Your task to perform on an android device: Add bose soundlink mini to the cart on bestbuy, then select checkout. Image 0: 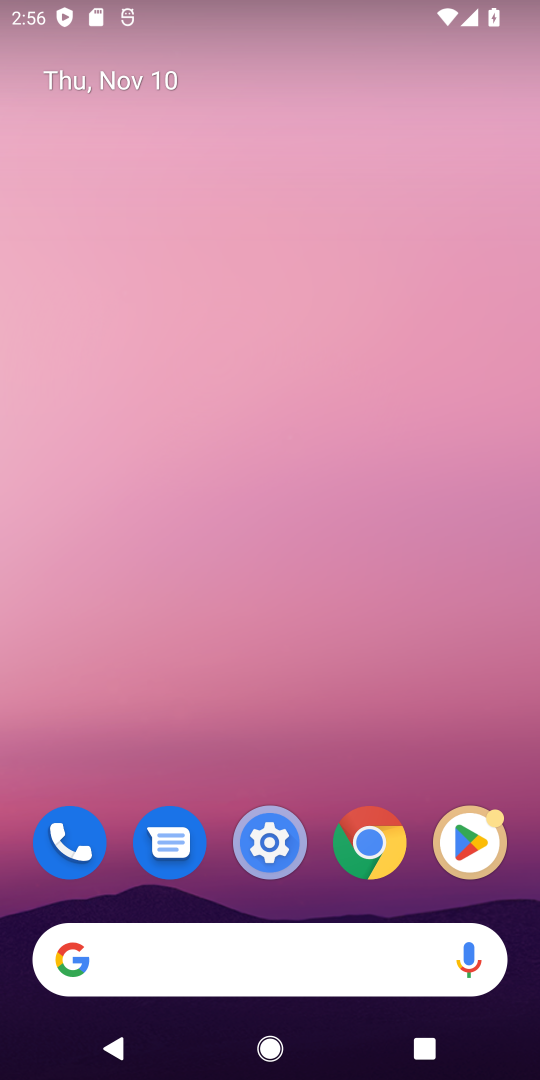
Step 0: press home button
Your task to perform on an android device: Add bose soundlink mini to the cart on bestbuy, then select checkout. Image 1: 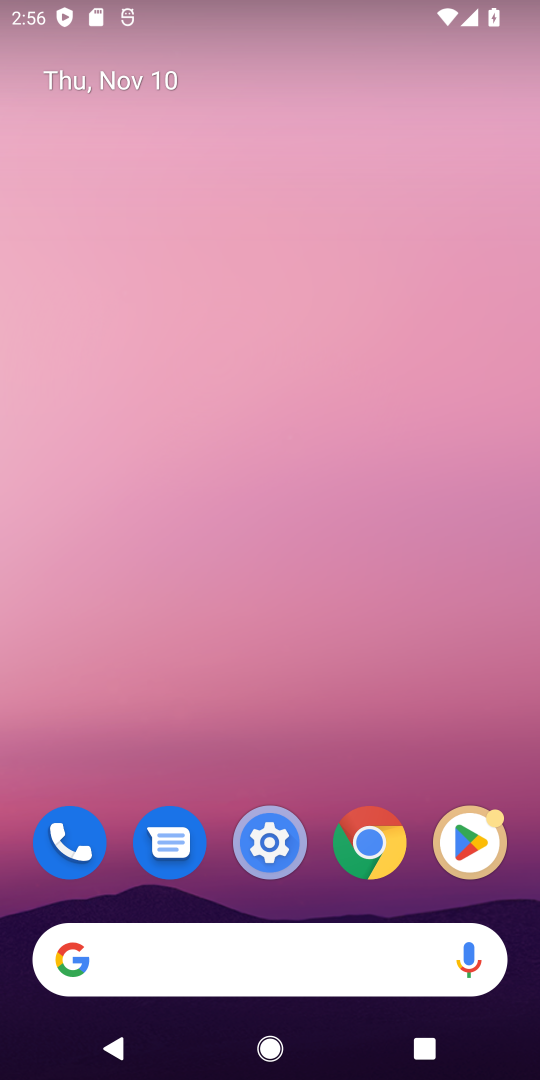
Step 1: click (123, 953)
Your task to perform on an android device: Add bose soundlink mini to the cart on bestbuy, then select checkout. Image 2: 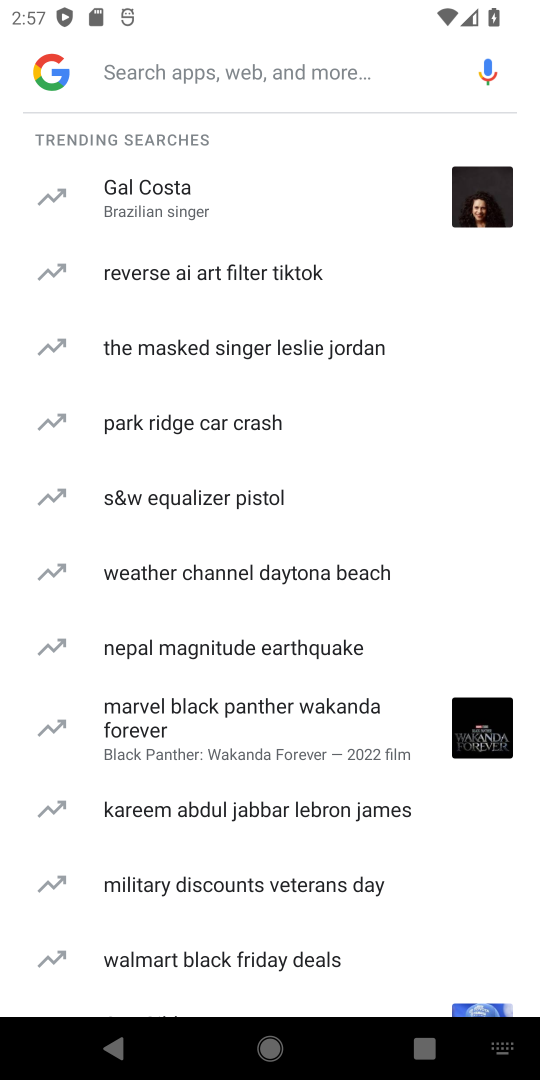
Step 2: type " bose soundlink mini"
Your task to perform on an android device: Add bose soundlink mini to the cart on bestbuy, then select checkout. Image 3: 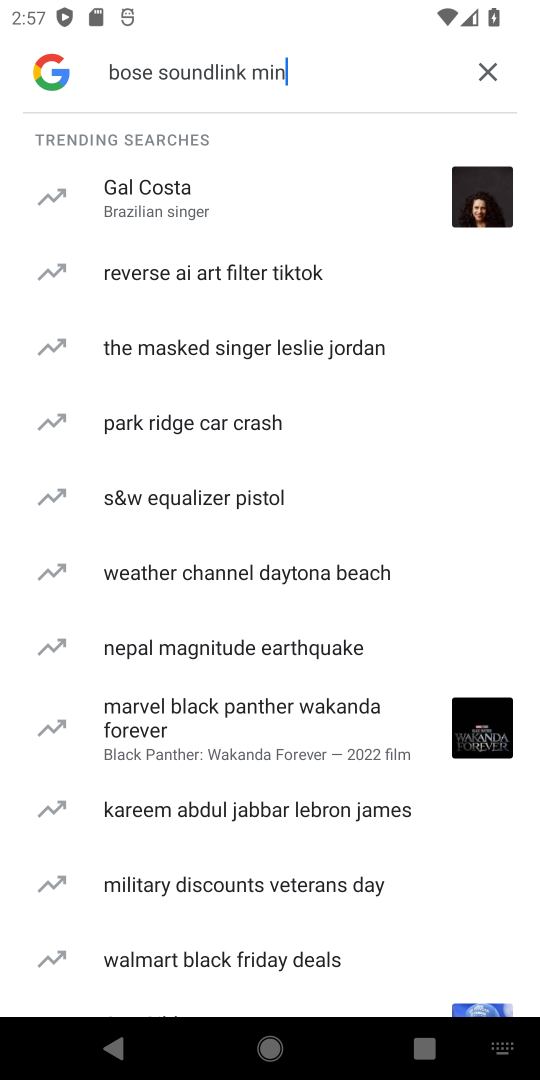
Step 3: press enter
Your task to perform on an android device: Add bose soundlink mini to the cart on bestbuy, then select checkout. Image 4: 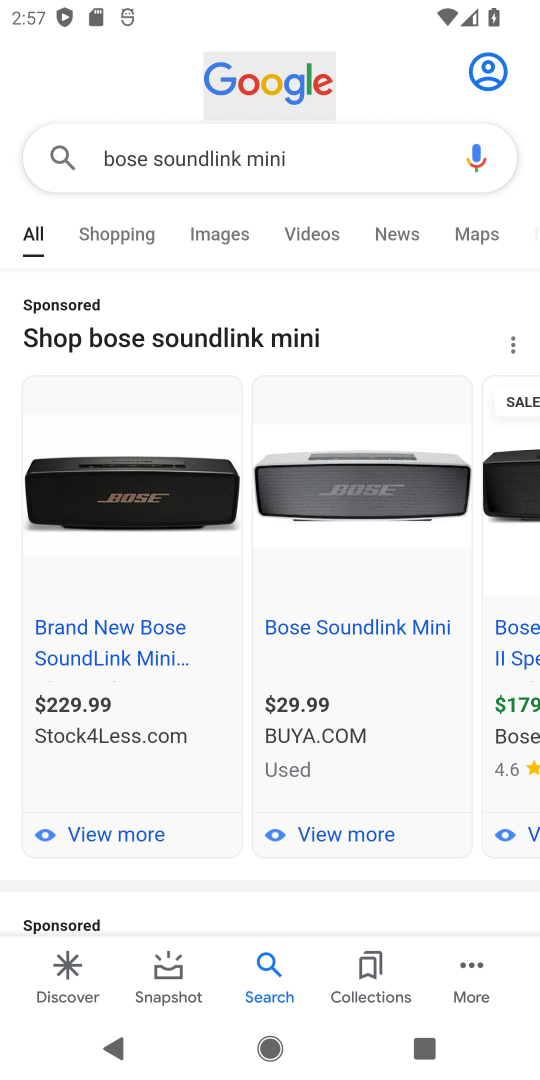
Step 4: drag from (262, 880) to (265, 474)
Your task to perform on an android device: Add bose soundlink mini to the cart on bestbuy, then select checkout. Image 5: 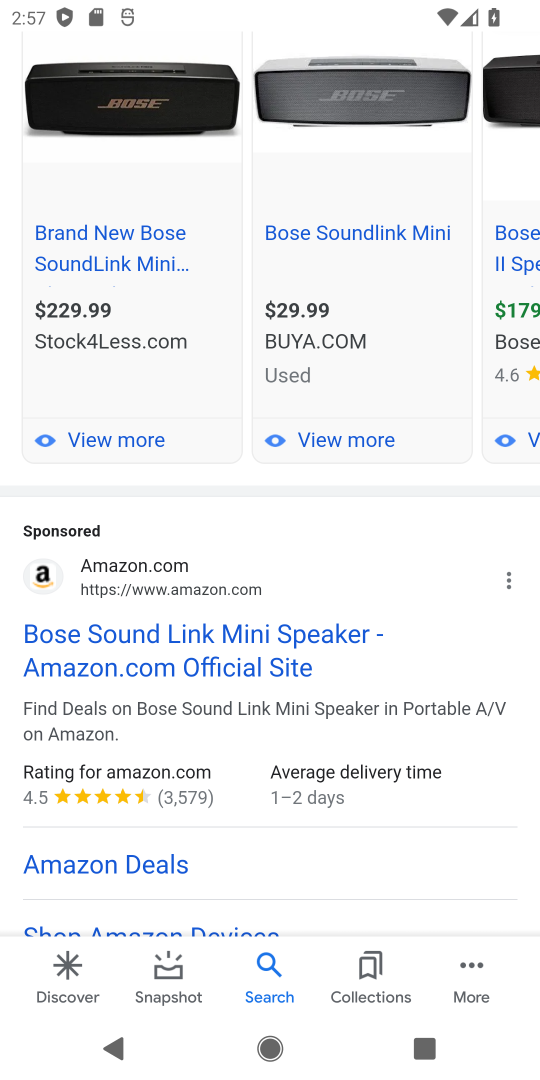
Step 5: drag from (224, 804) to (239, 499)
Your task to perform on an android device: Add bose soundlink mini to the cart on bestbuy, then select checkout. Image 6: 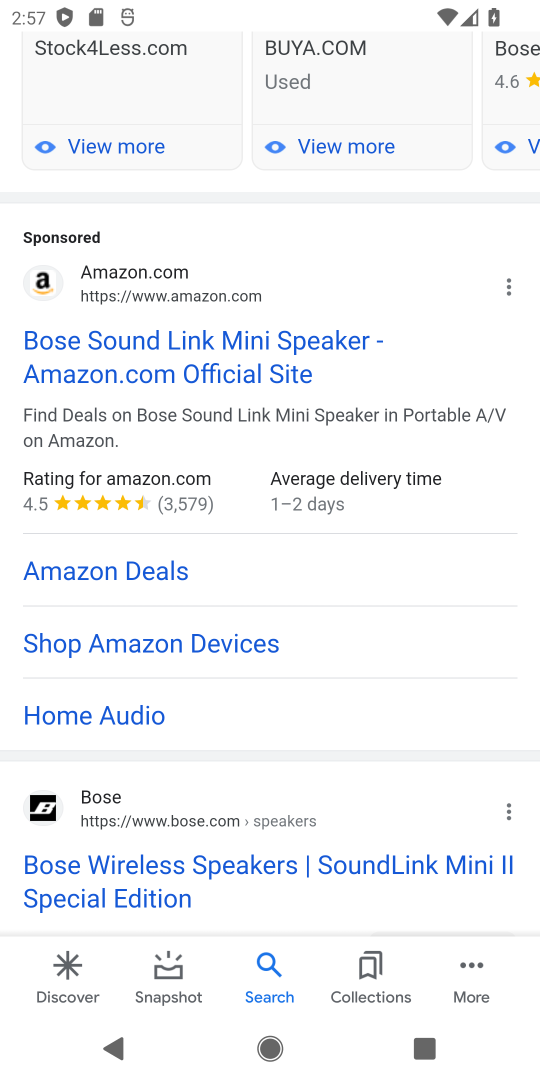
Step 6: drag from (363, 423) to (355, 779)
Your task to perform on an android device: Add bose soundlink mini to the cart on bestbuy, then select checkout. Image 7: 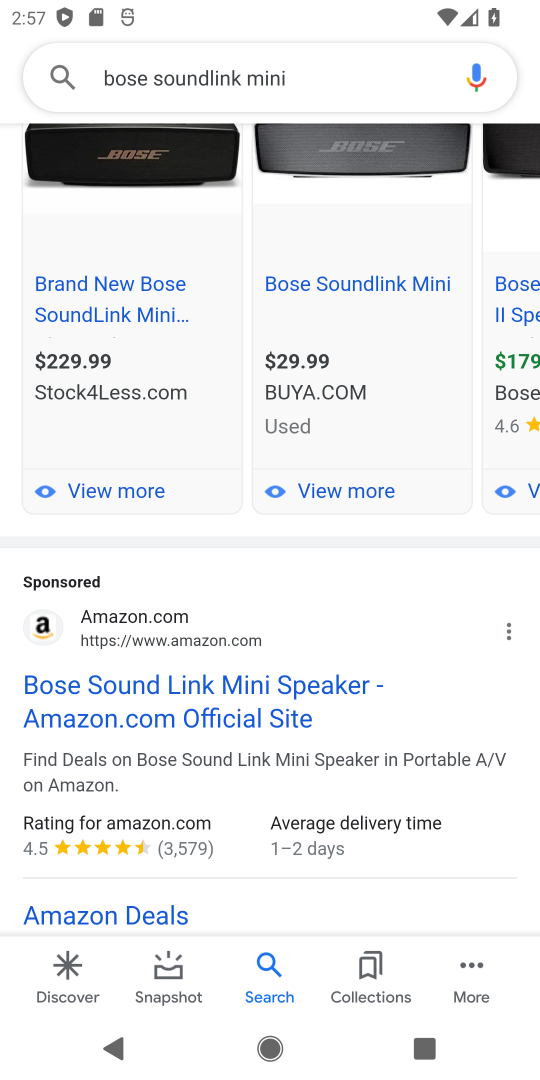
Step 7: drag from (348, 229) to (347, 821)
Your task to perform on an android device: Add bose soundlink mini to the cart on bestbuy, then select checkout. Image 8: 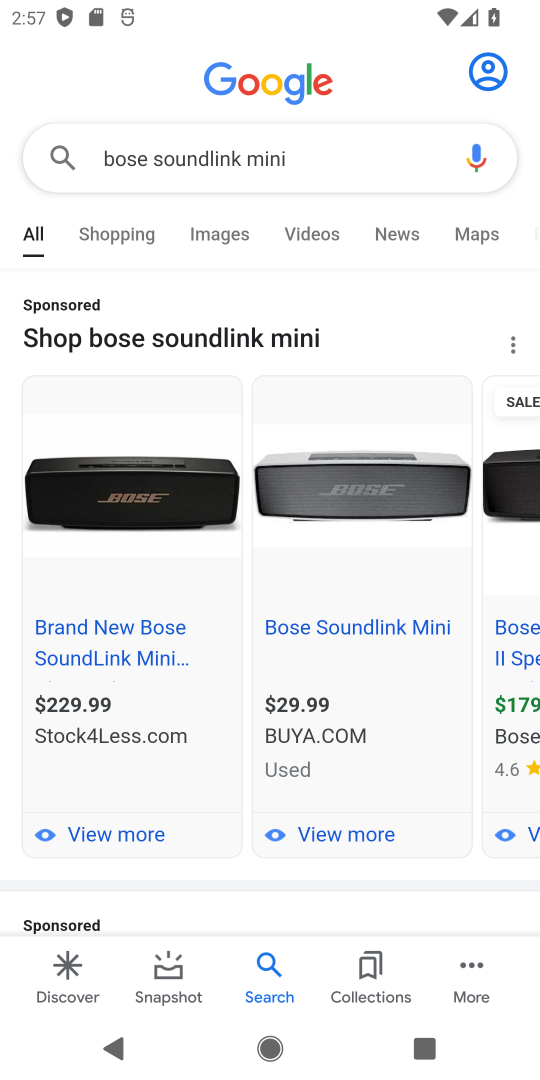
Step 8: press back button
Your task to perform on an android device: Add bose soundlink mini to the cart on bestbuy, then select checkout. Image 9: 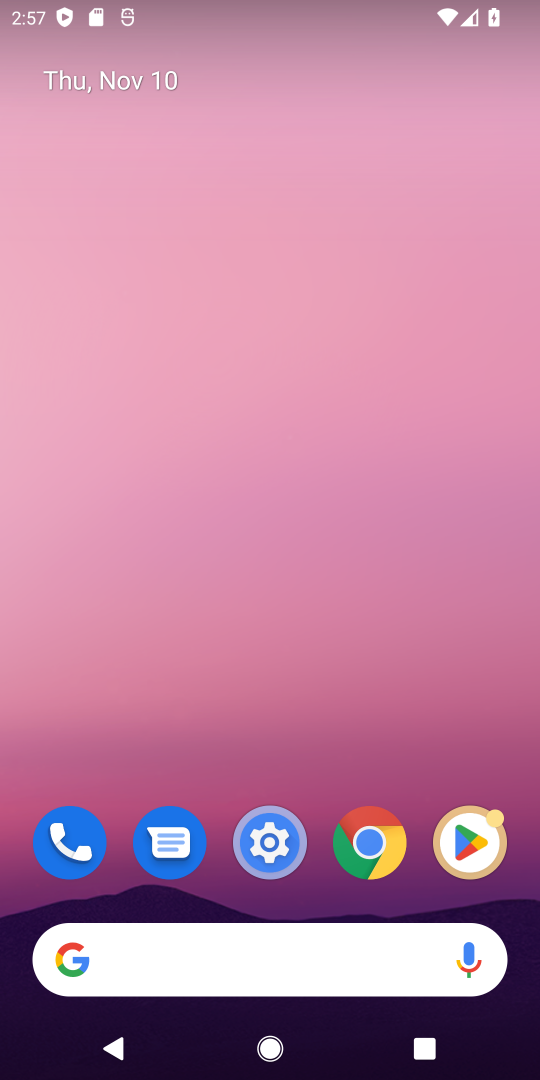
Step 9: click (140, 957)
Your task to perform on an android device: Add bose soundlink mini to the cart on bestbuy, then select checkout. Image 10: 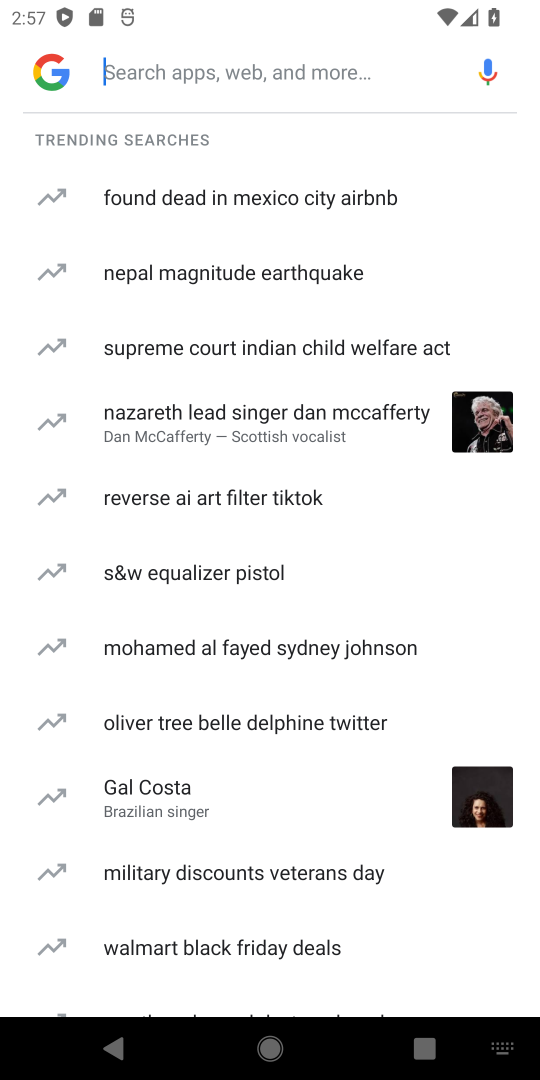
Step 10: type " bestbuy"
Your task to perform on an android device: Add bose soundlink mini to the cart on bestbuy, then select checkout. Image 11: 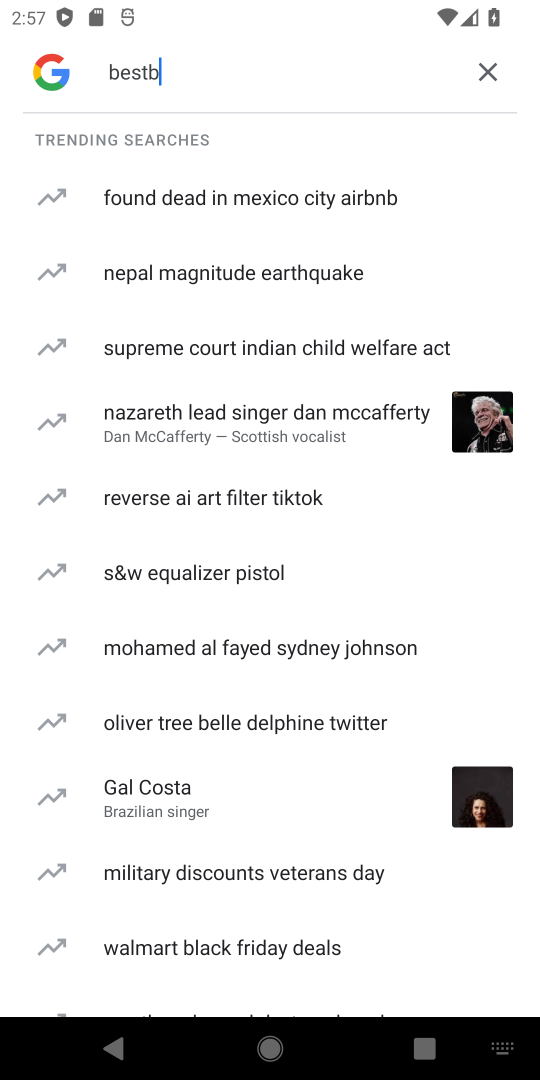
Step 11: press enter
Your task to perform on an android device: Add bose soundlink mini to the cart on bestbuy, then select checkout. Image 12: 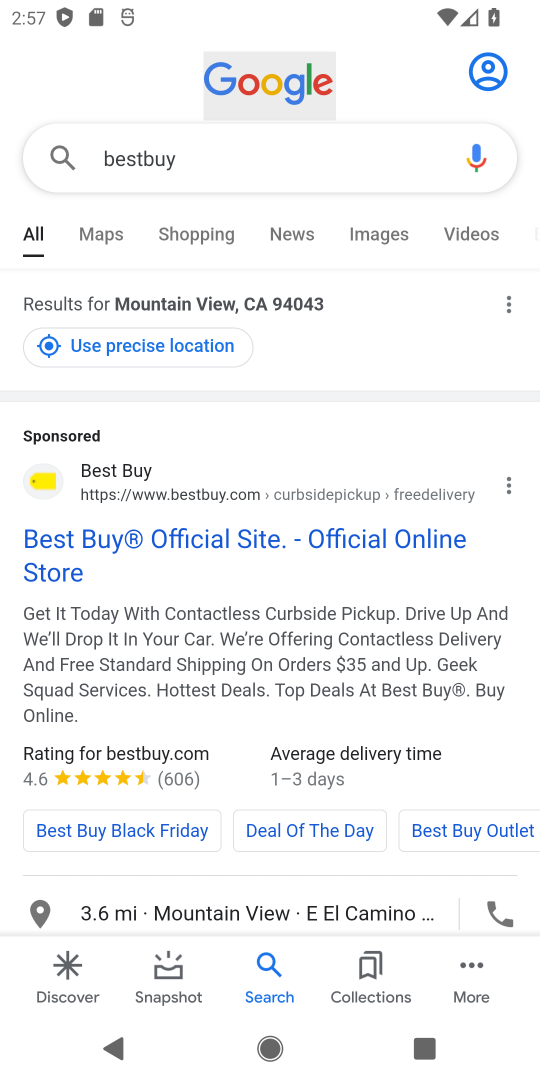
Step 12: click (106, 534)
Your task to perform on an android device: Add bose soundlink mini to the cart on bestbuy, then select checkout. Image 13: 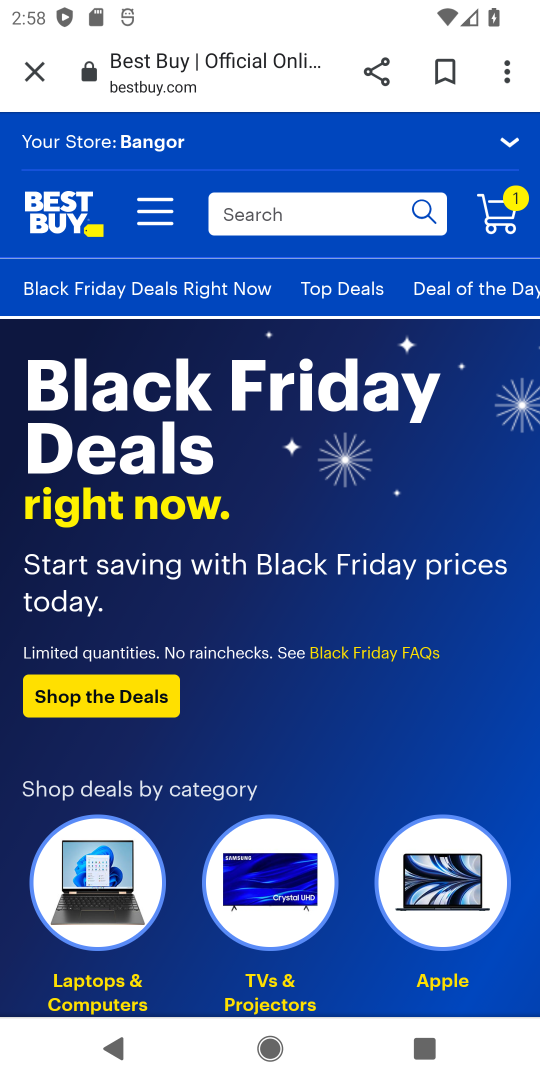
Step 13: click (250, 208)
Your task to perform on an android device: Add bose soundlink mini to the cart on bestbuy, then select checkout. Image 14: 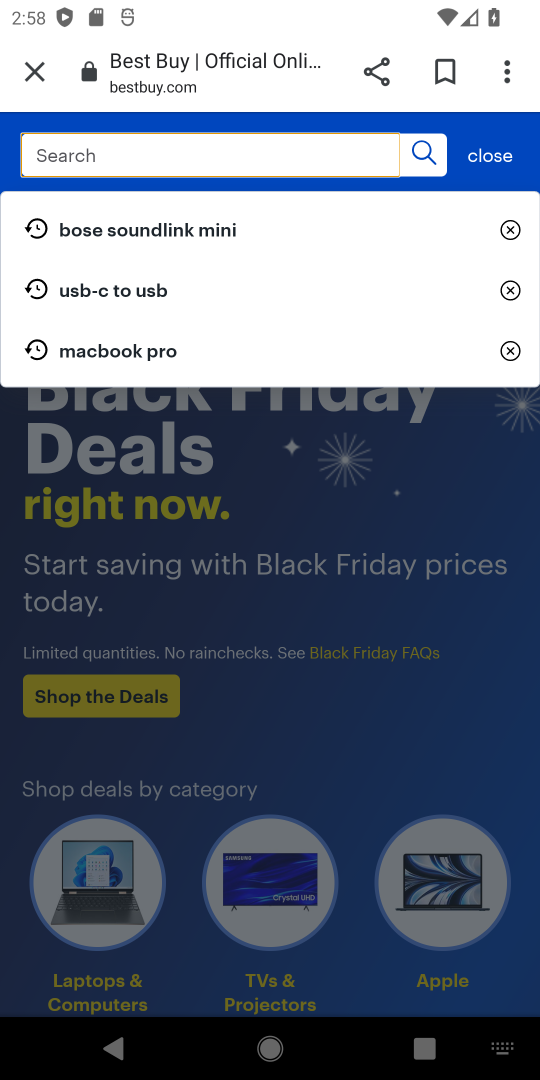
Step 14: type " bose soundlink mini "
Your task to perform on an android device: Add bose soundlink mini to the cart on bestbuy, then select checkout. Image 15: 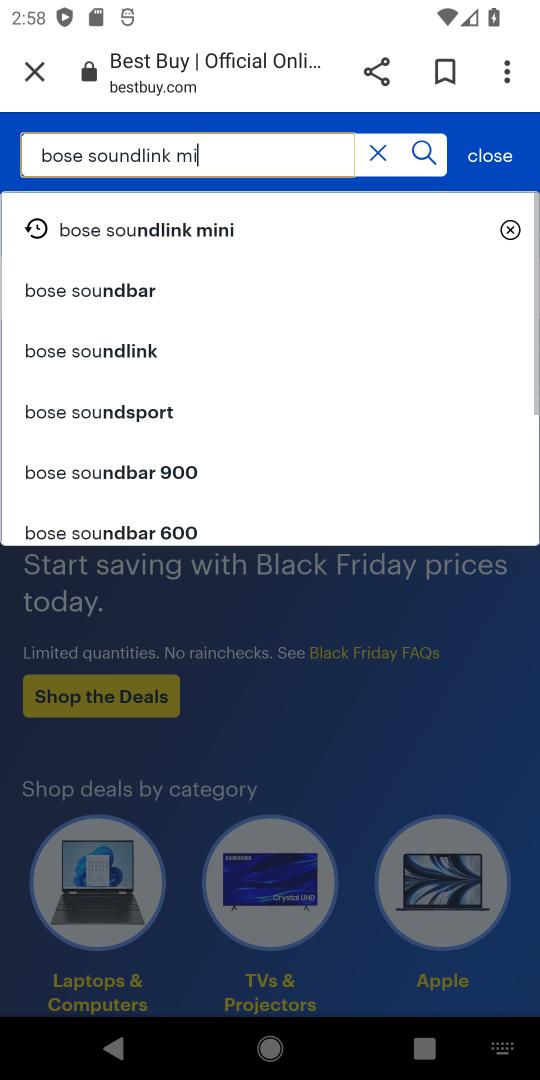
Step 15: press enter
Your task to perform on an android device: Add bose soundlink mini to the cart on bestbuy, then select checkout. Image 16: 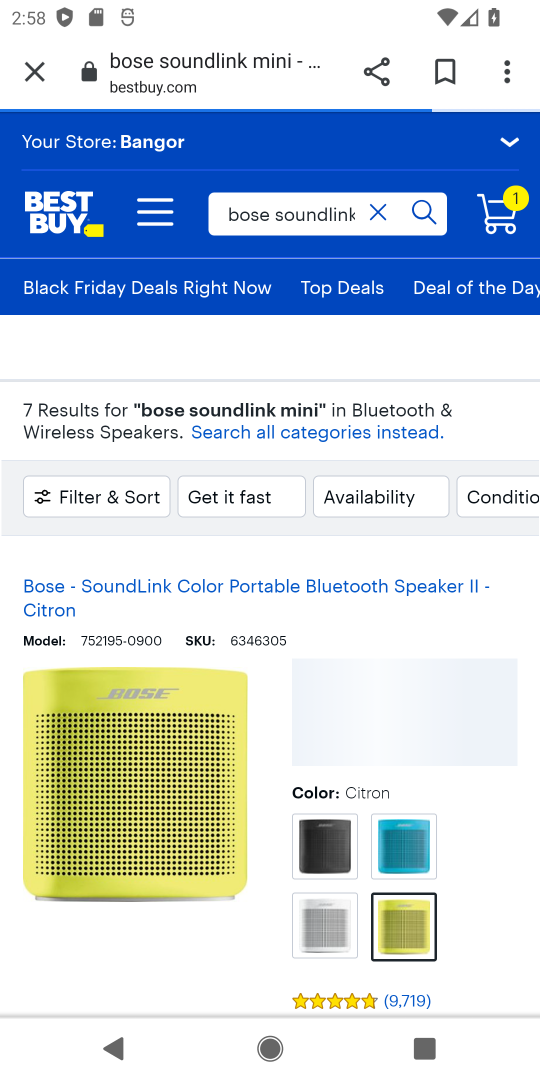
Step 16: drag from (353, 889) to (351, 459)
Your task to perform on an android device: Add bose soundlink mini to the cart on bestbuy, then select checkout. Image 17: 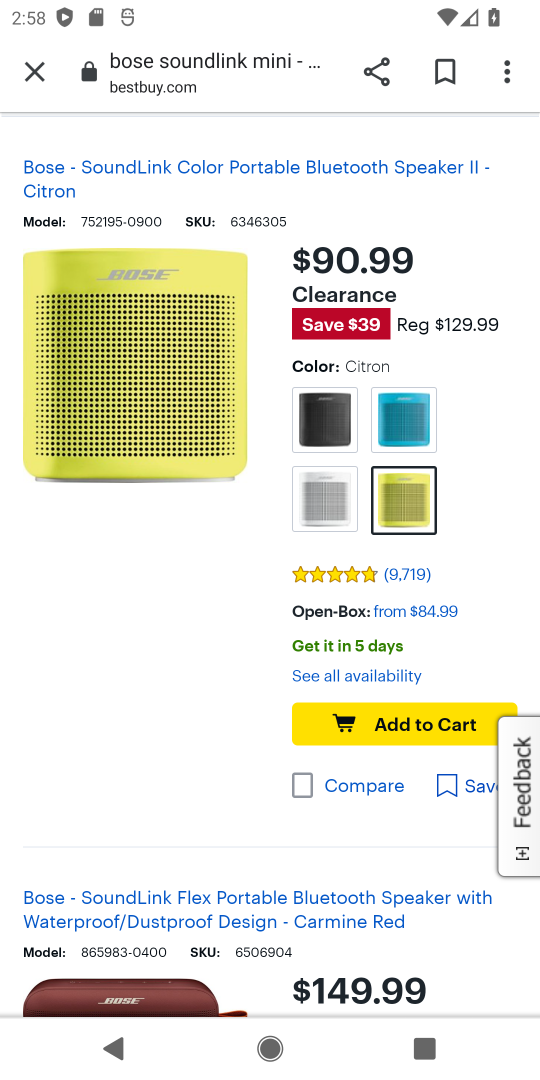
Step 17: click (409, 730)
Your task to perform on an android device: Add bose soundlink mini to the cart on bestbuy, then select checkout. Image 18: 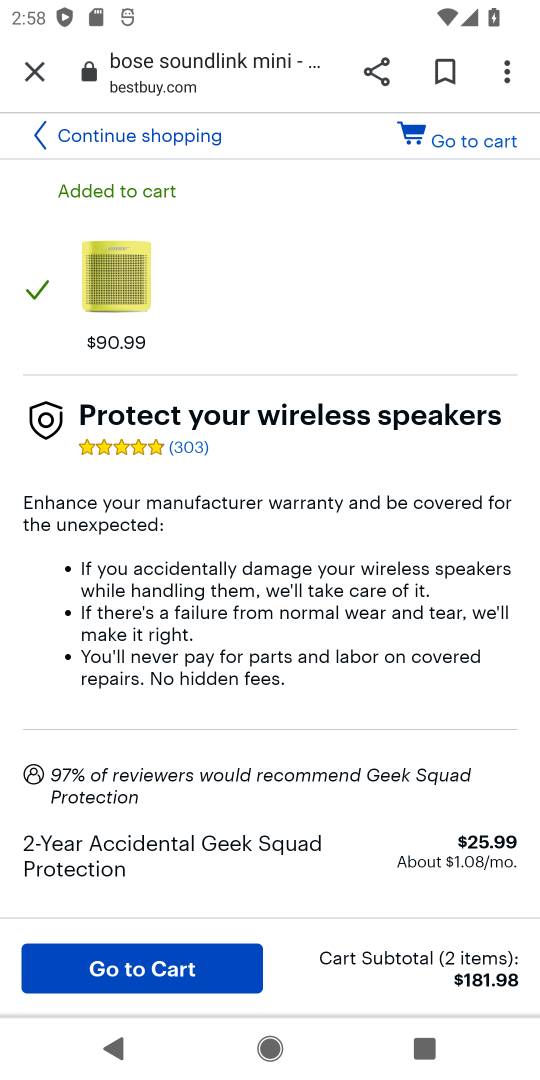
Step 18: task complete